Your task to perform on an android device: Search for the best books on Goodreads. Image 0: 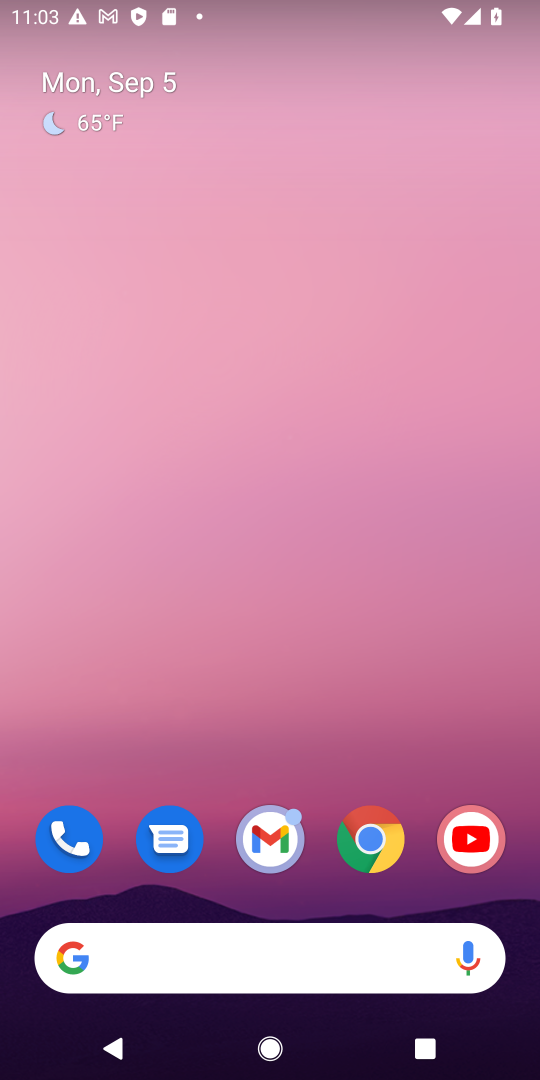
Step 0: drag from (305, 914) to (373, 232)
Your task to perform on an android device: Search for the best books on Goodreads. Image 1: 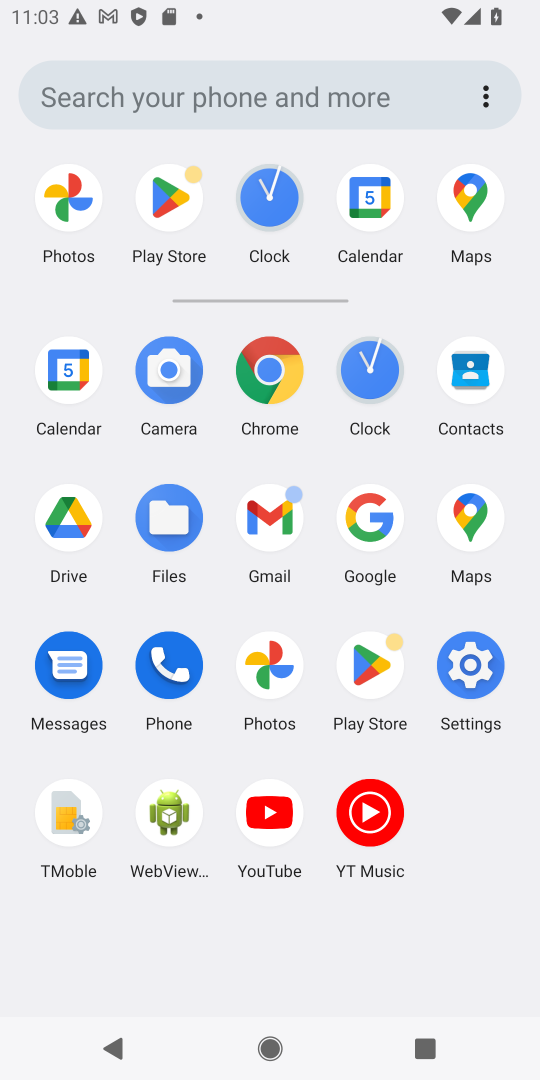
Step 1: click (372, 532)
Your task to perform on an android device: Search for the best books on Goodreads. Image 2: 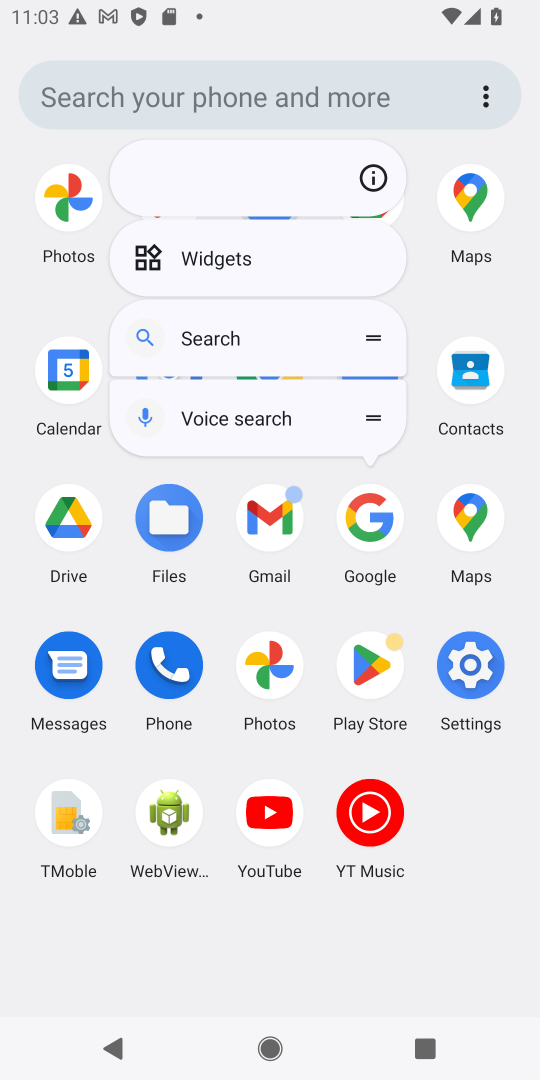
Step 2: click (370, 509)
Your task to perform on an android device: Search for the best books on Goodreads. Image 3: 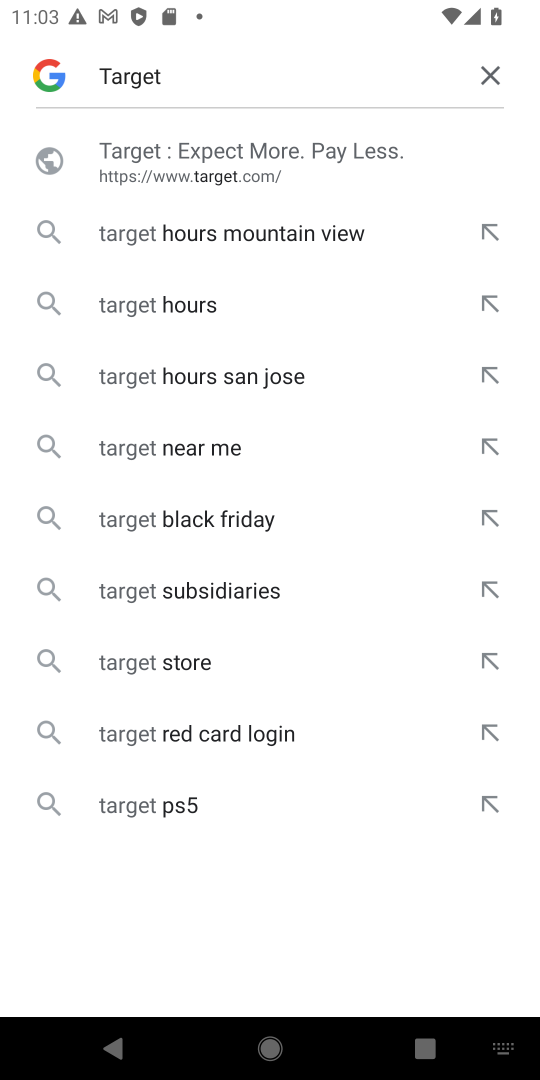
Step 3: click (491, 84)
Your task to perform on an android device: Search for the best books on Goodreads. Image 4: 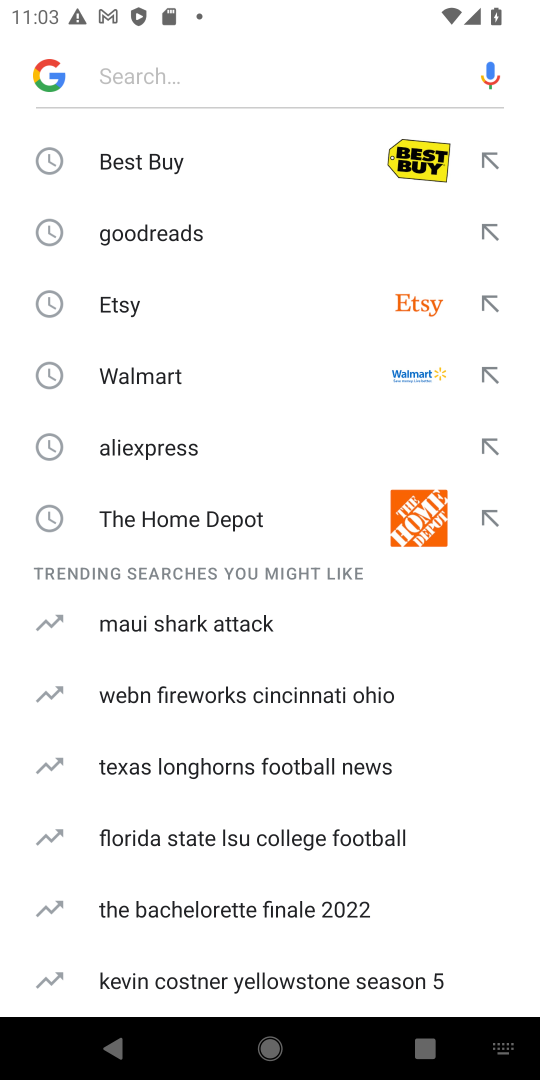
Step 4: type "Goodreads"
Your task to perform on an android device: Search for the best books on Goodreads. Image 5: 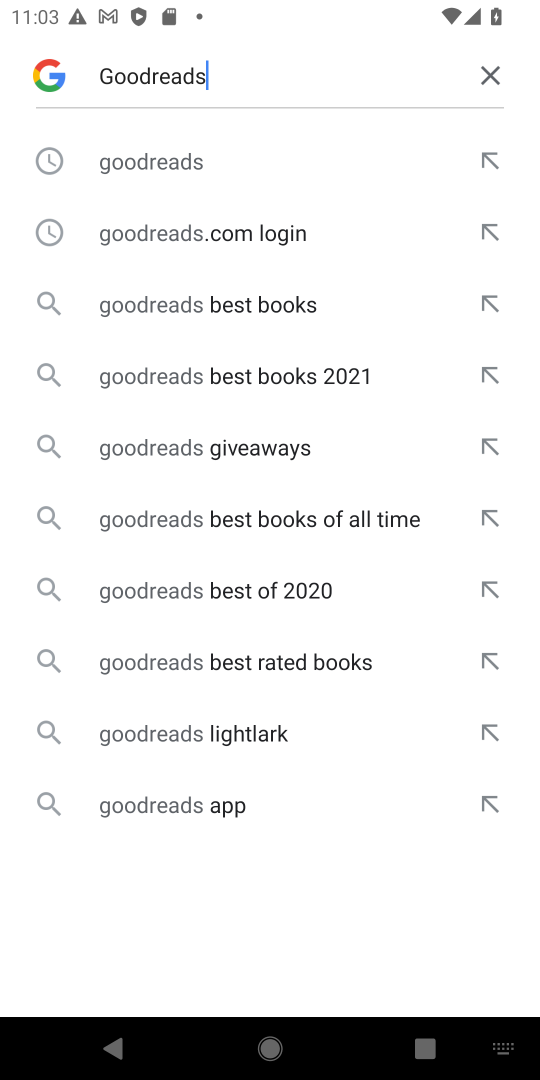
Step 5: click (185, 158)
Your task to perform on an android device: Search for the best books on Goodreads. Image 6: 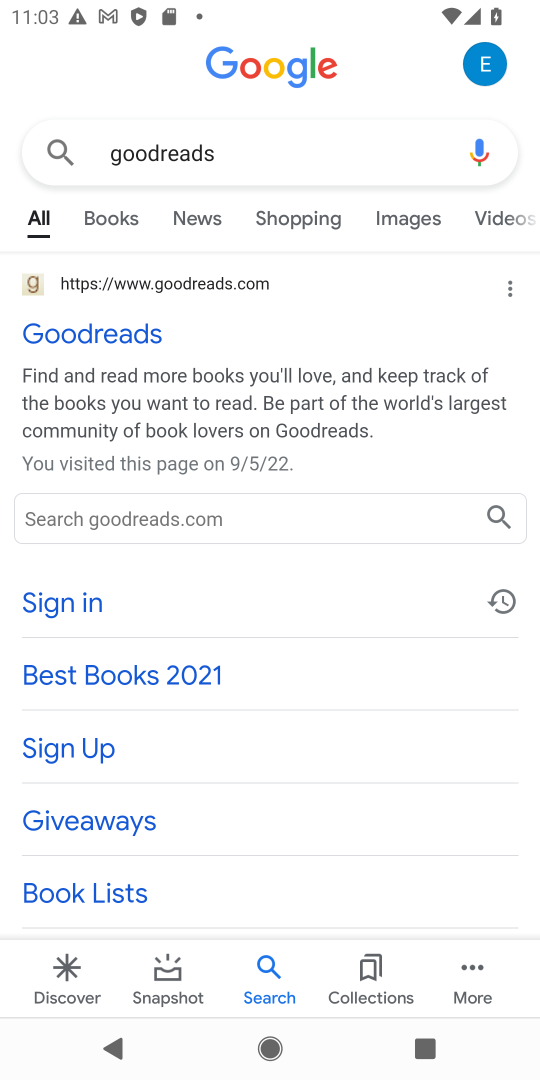
Step 6: click (78, 332)
Your task to perform on an android device: Search for the best books on Goodreads. Image 7: 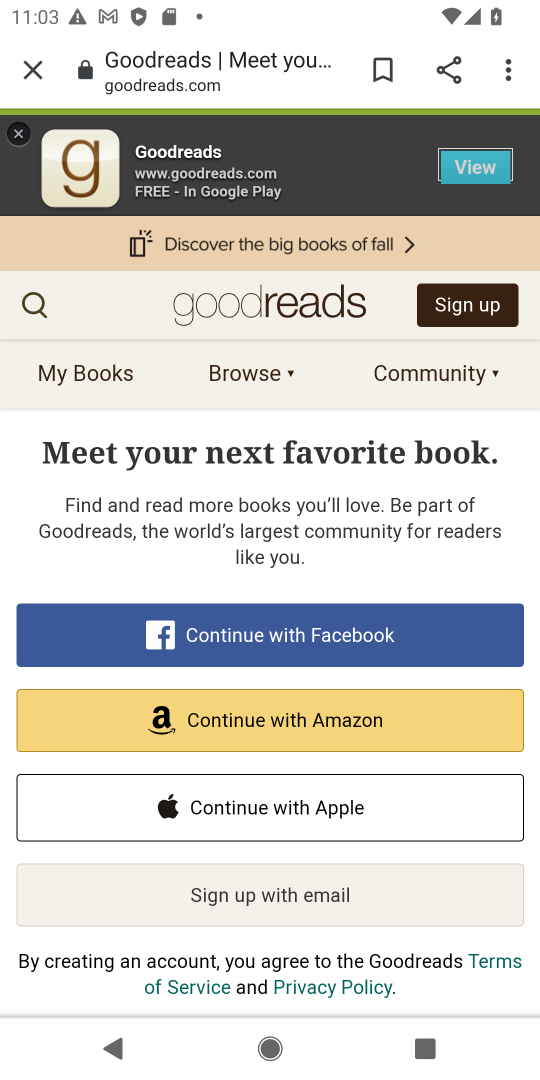
Step 7: click (30, 300)
Your task to perform on an android device: Search for the best books on Goodreads. Image 8: 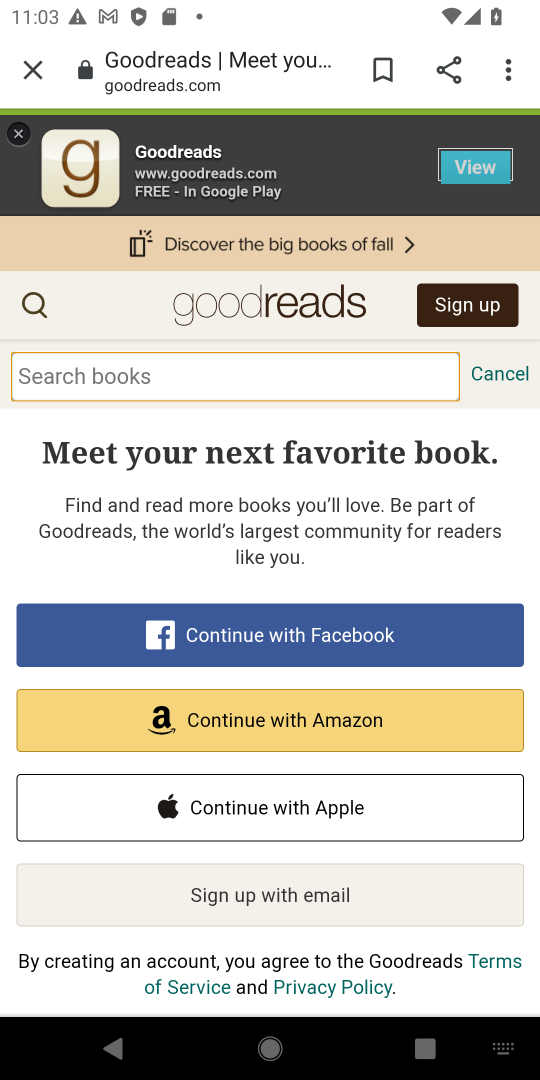
Step 8: type "best books"
Your task to perform on an android device: Search for the best books on Goodreads. Image 9: 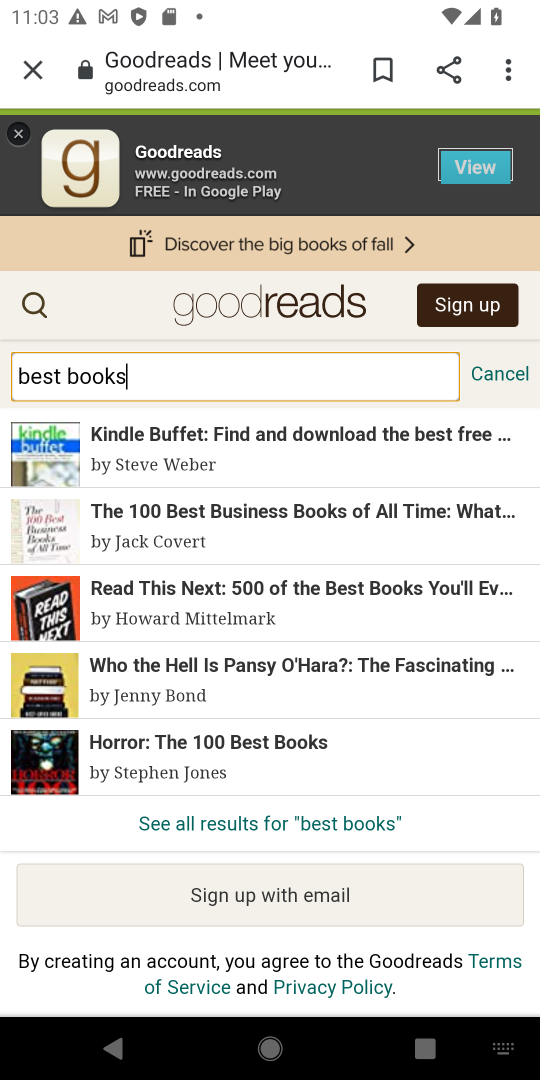
Step 9: click (336, 439)
Your task to perform on an android device: Search for the best books on Goodreads. Image 10: 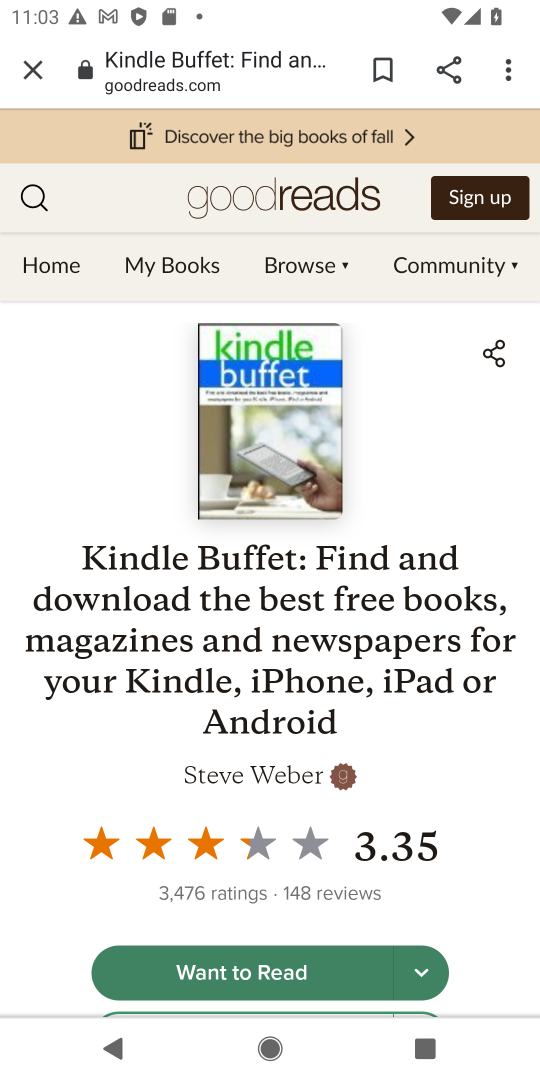
Step 10: drag from (382, 858) to (380, 416)
Your task to perform on an android device: Search for the best books on Goodreads. Image 11: 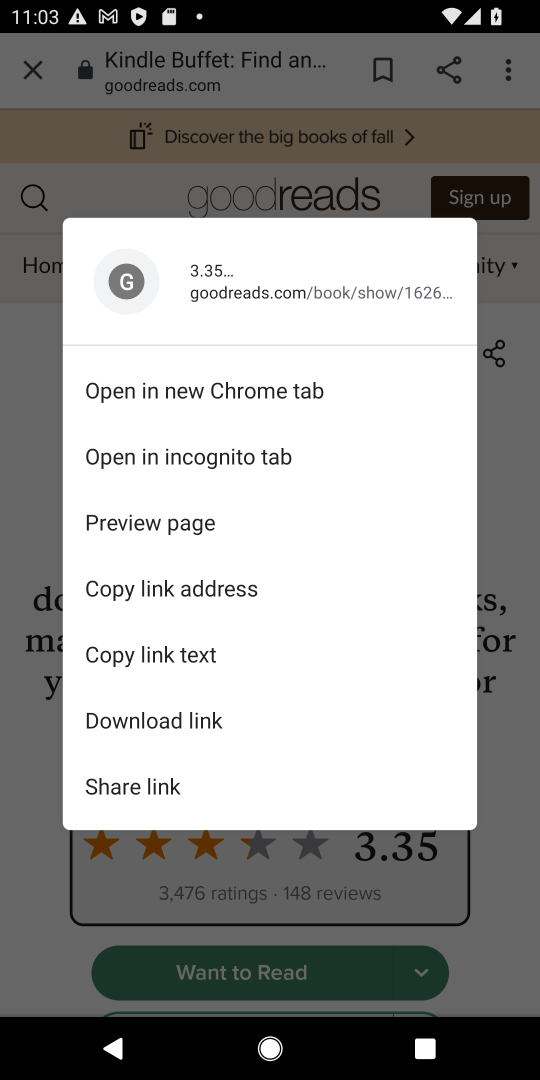
Step 11: click (485, 317)
Your task to perform on an android device: Search for the best books on Goodreads. Image 12: 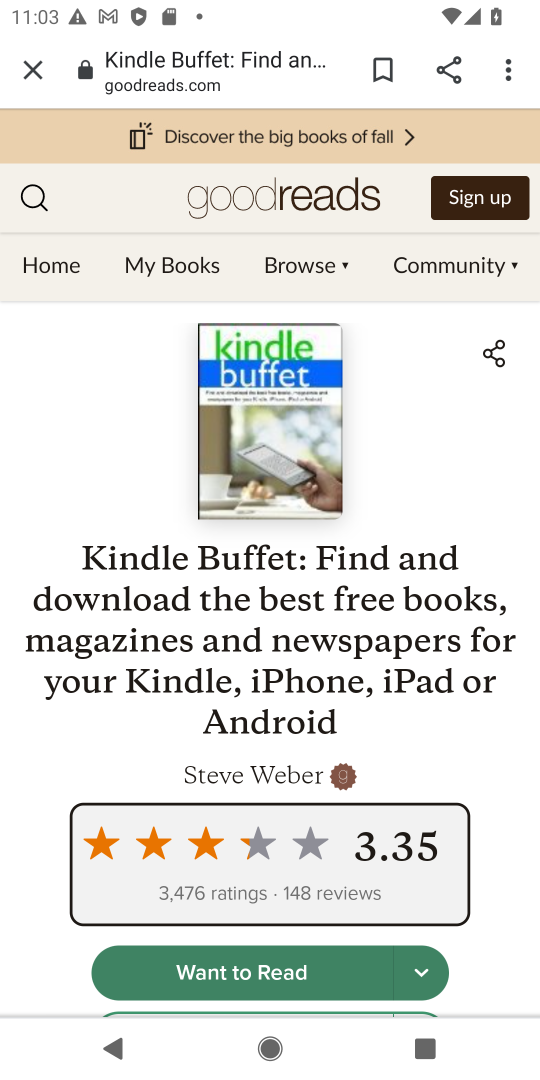
Step 12: task complete